Your task to perform on an android device: Show me popular games on the Play Store Image 0: 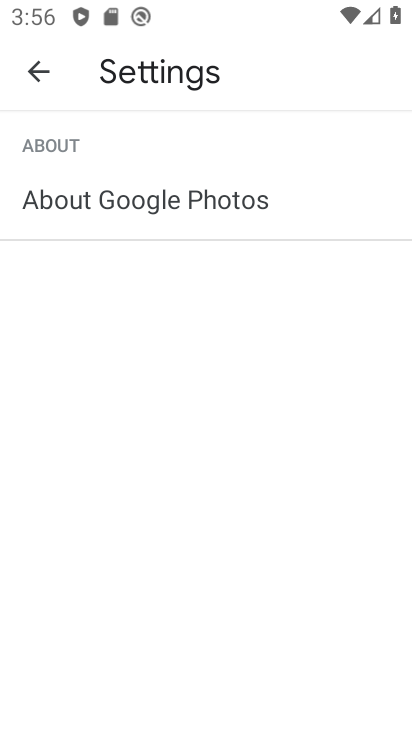
Step 0: press home button
Your task to perform on an android device: Show me popular games on the Play Store Image 1: 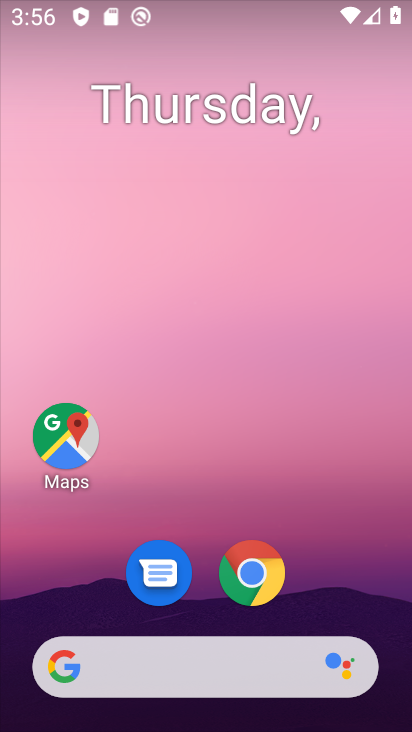
Step 1: drag from (385, 635) to (307, 97)
Your task to perform on an android device: Show me popular games on the Play Store Image 2: 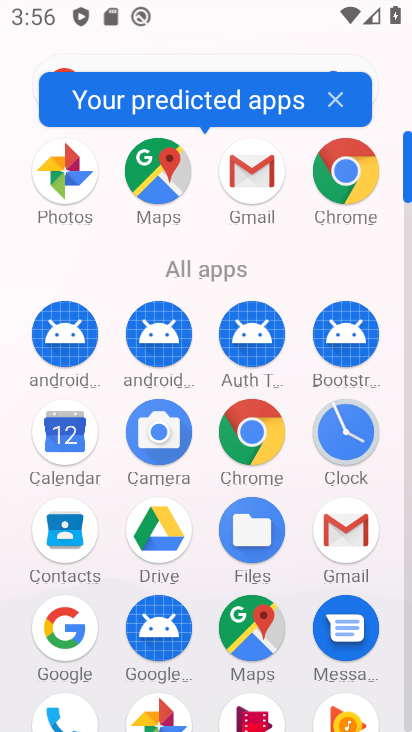
Step 2: click (406, 712)
Your task to perform on an android device: Show me popular games on the Play Store Image 3: 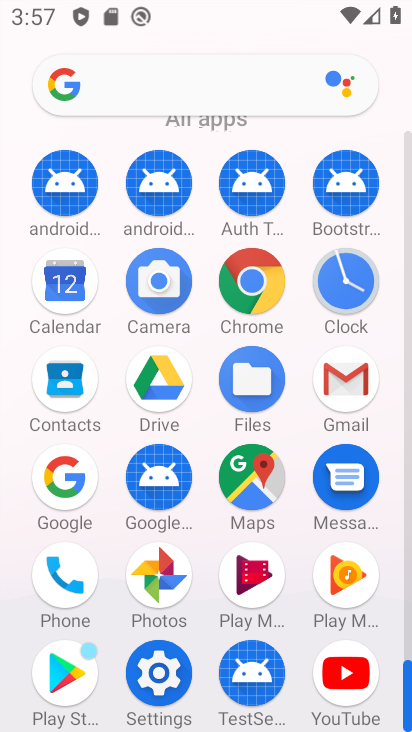
Step 3: click (69, 673)
Your task to perform on an android device: Show me popular games on the Play Store Image 4: 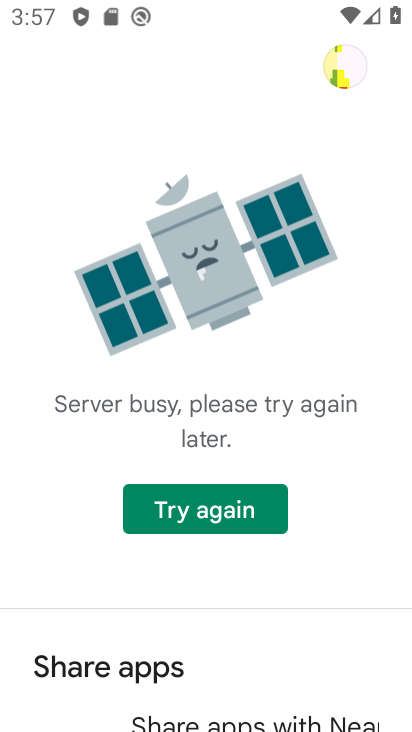
Step 4: click (202, 517)
Your task to perform on an android device: Show me popular games on the Play Store Image 5: 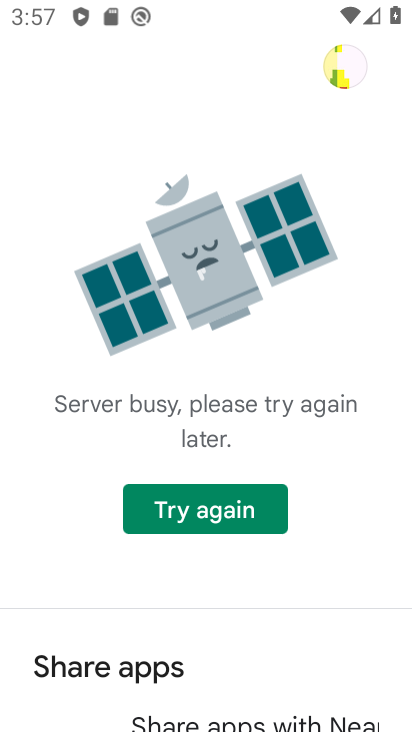
Step 5: task complete